Your task to perform on an android device: Open Maps and search for coffee Image 0: 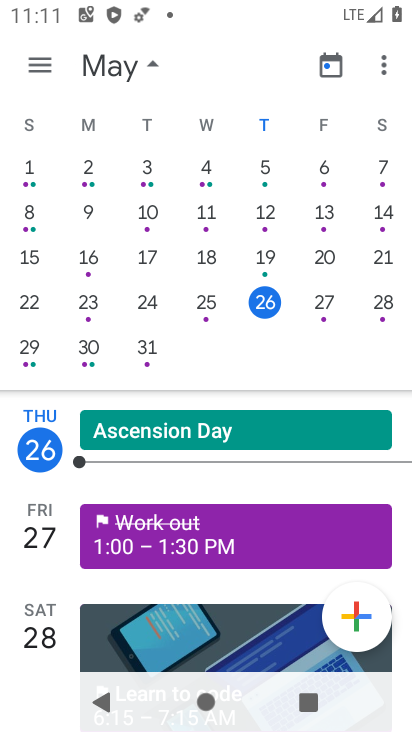
Step 0: press home button
Your task to perform on an android device: Open Maps and search for coffee Image 1: 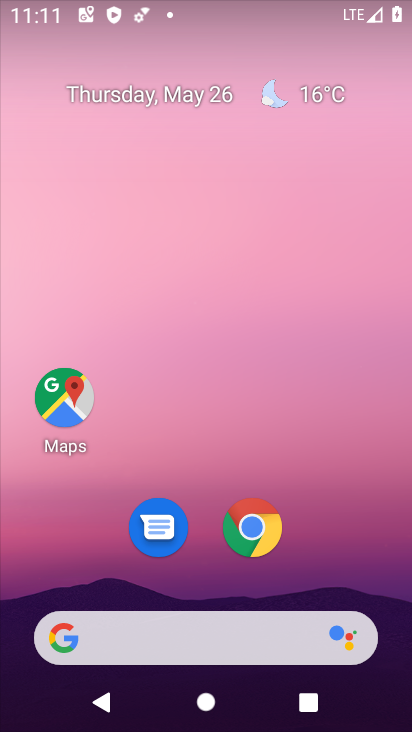
Step 1: click (70, 396)
Your task to perform on an android device: Open Maps and search for coffee Image 2: 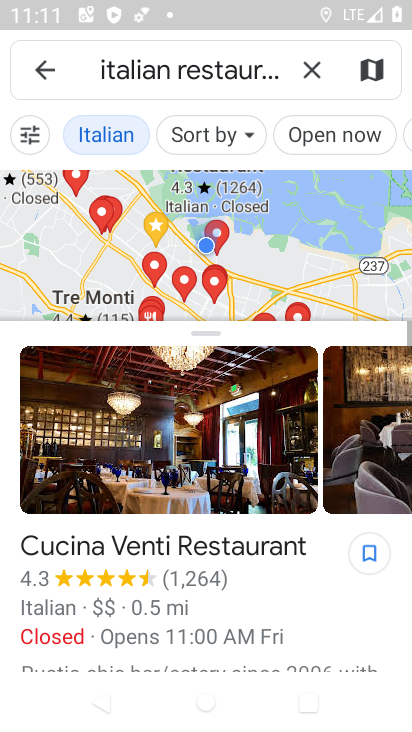
Step 2: click (301, 64)
Your task to perform on an android device: Open Maps and search for coffee Image 3: 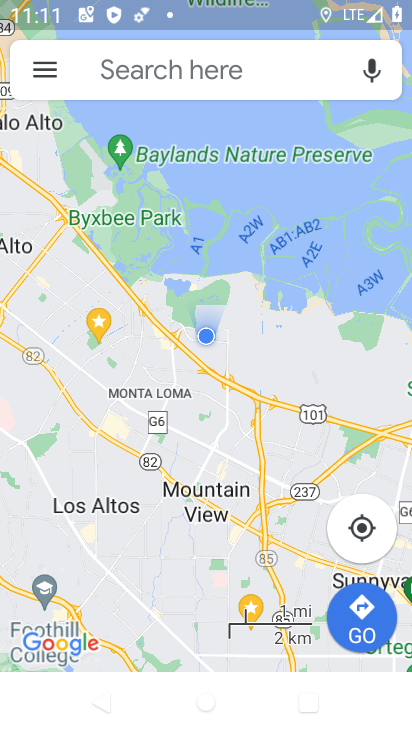
Step 3: click (190, 74)
Your task to perform on an android device: Open Maps and search for coffee Image 4: 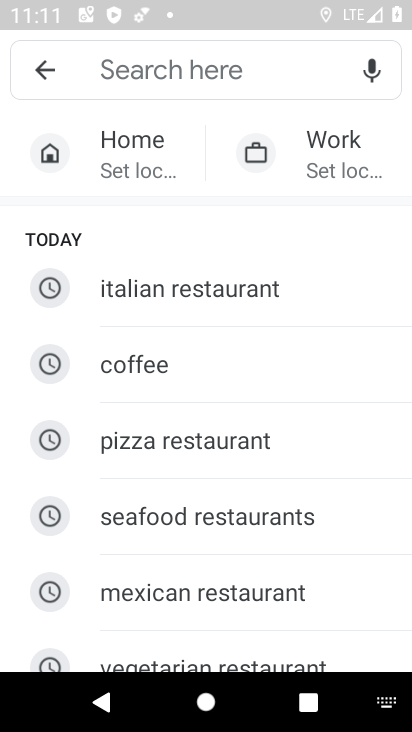
Step 4: type "coffee"
Your task to perform on an android device: Open Maps and search for coffee Image 5: 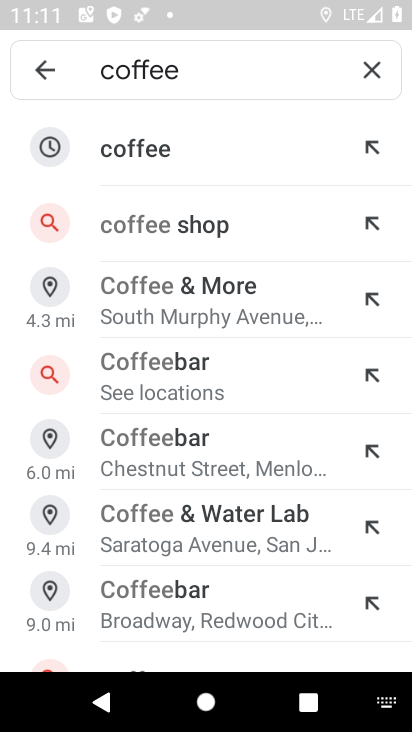
Step 5: click (143, 149)
Your task to perform on an android device: Open Maps and search for coffee Image 6: 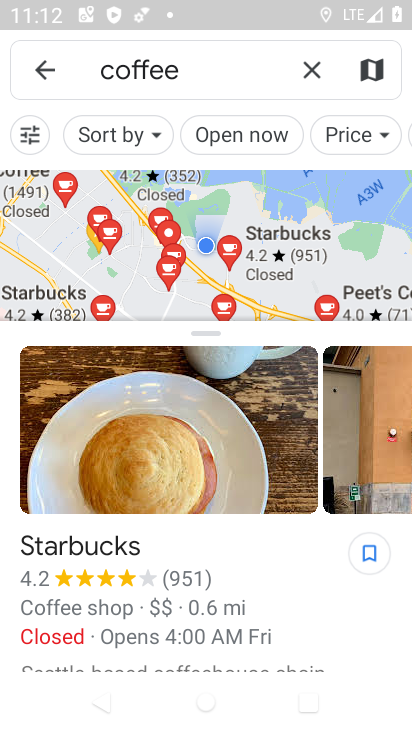
Step 6: task complete